Your task to perform on an android device: Go to Reddit.com Image 0: 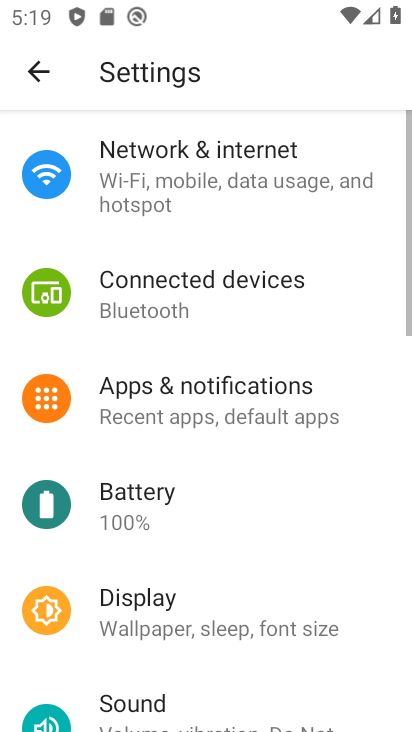
Step 0: press home button
Your task to perform on an android device: Go to Reddit.com Image 1: 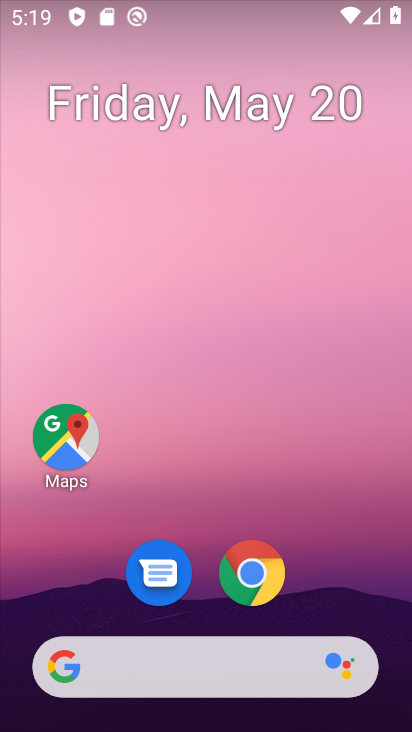
Step 1: drag from (331, 453) to (273, 9)
Your task to perform on an android device: Go to Reddit.com Image 2: 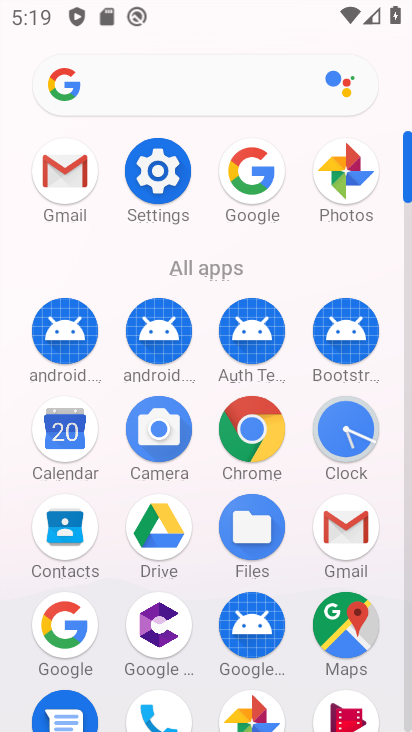
Step 2: click (255, 433)
Your task to perform on an android device: Go to Reddit.com Image 3: 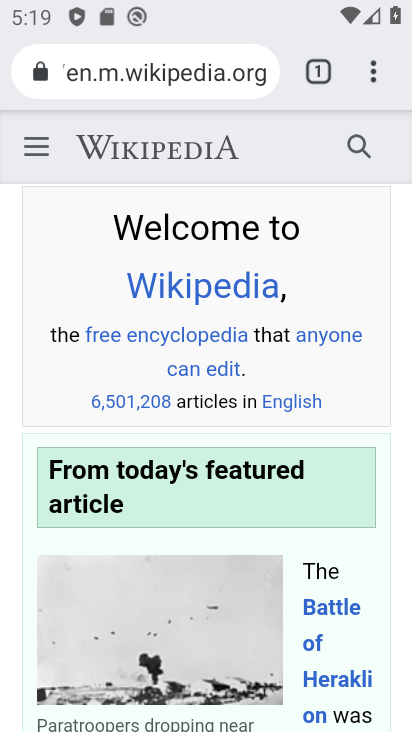
Step 3: click (192, 62)
Your task to perform on an android device: Go to Reddit.com Image 4: 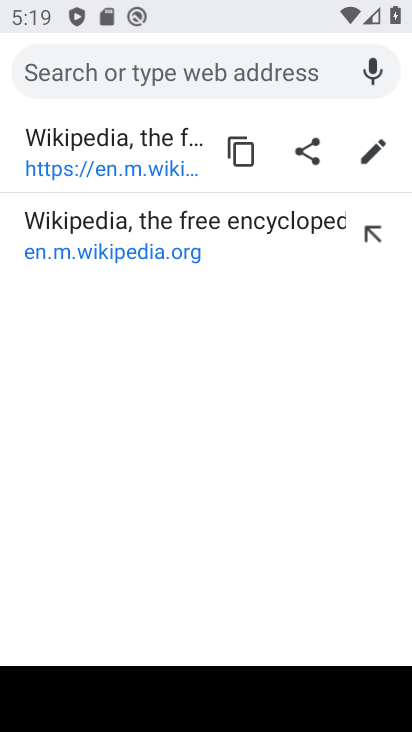
Step 4: type "Reddit.com"
Your task to perform on an android device: Go to Reddit.com Image 5: 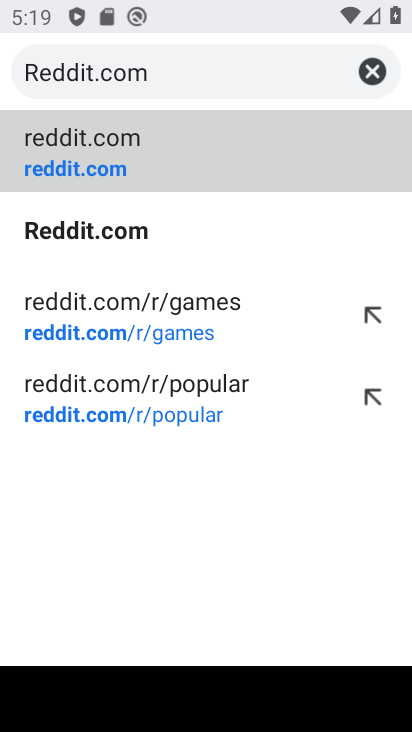
Step 5: click (132, 176)
Your task to perform on an android device: Go to Reddit.com Image 6: 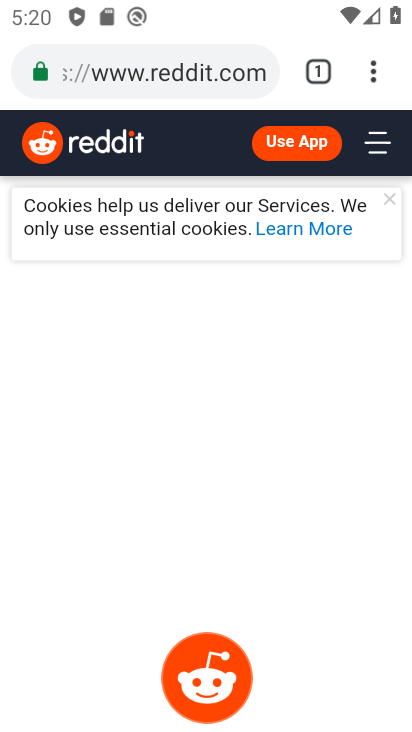
Step 6: task complete